Your task to perform on an android device: turn off notifications settings in the gmail app Image 0: 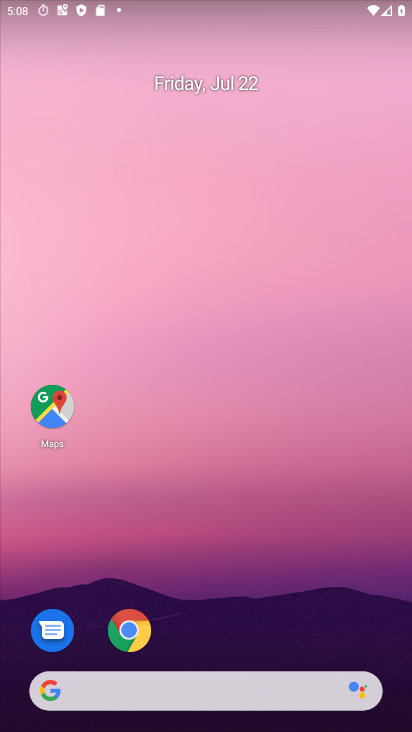
Step 0: drag from (306, 693) to (216, 30)
Your task to perform on an android device: turn off notifications settings in the gmail app Image 1: 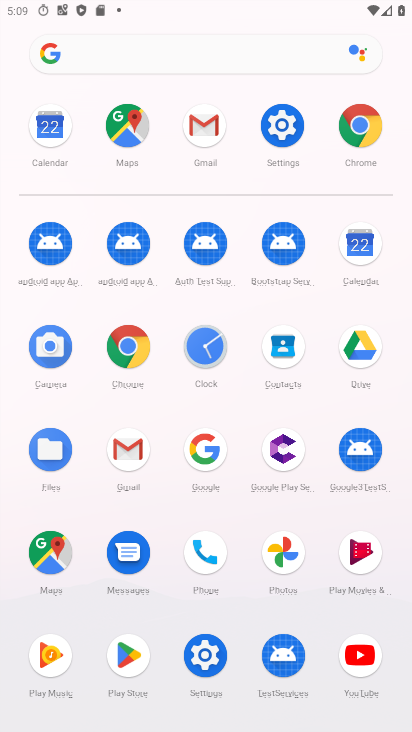
Step 1: click (118, 450)
Your task to perform on an android device: turn off notifications settings in the gmail app Image 2: 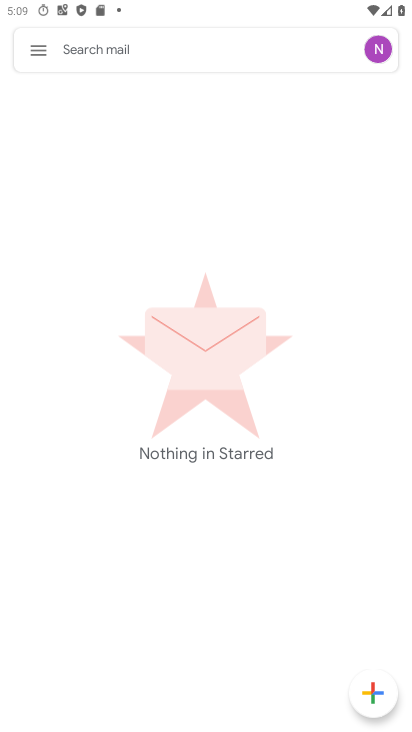
Step 2: click (35, 51)
Your task to perform on an android device: turn off notifications settings in the gmail app Image 3: 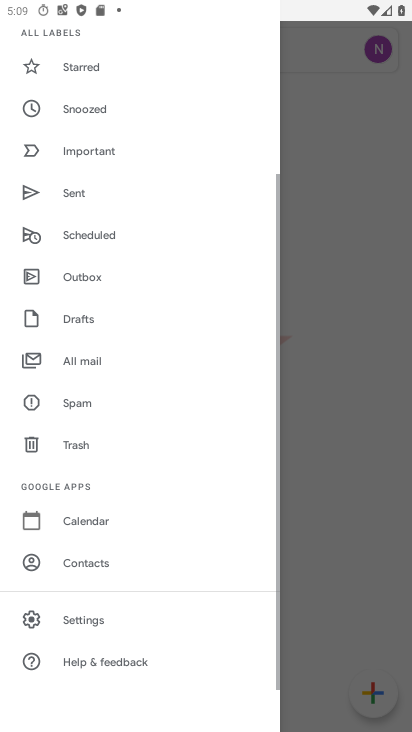
Step 3: click (98, 627)
Your task to perform on an android device: turn off notifications settings in the gmail app Image 4: 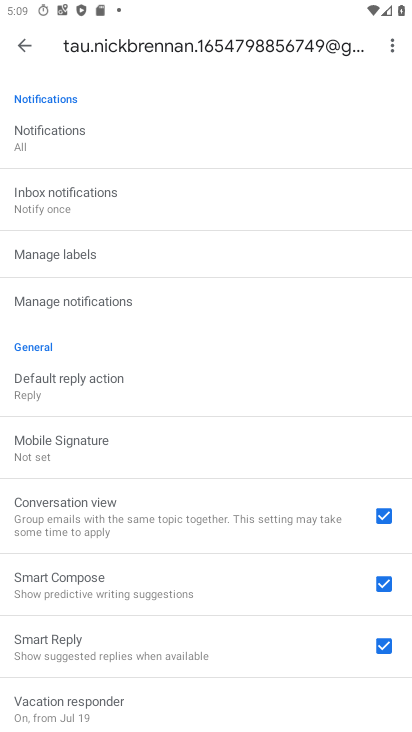
Step 4: click (88, 303)
Your task to perform on an android device: turn off notifications settings in the gmail app Image 5: 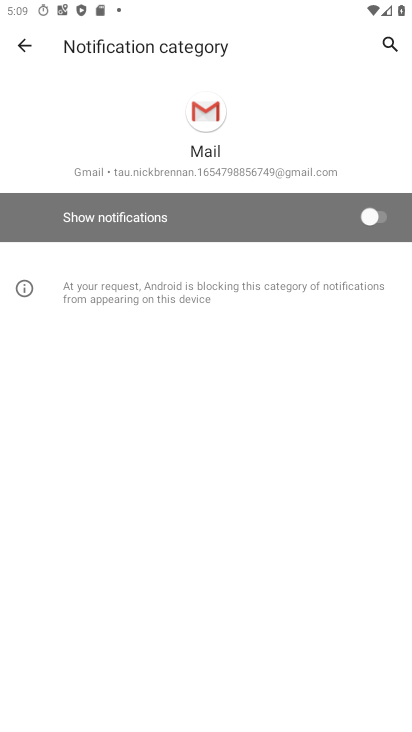
Step 5: click (376, 212)
Your task to perform on an android device: turn off notifications settings in the gmail app Image 6: 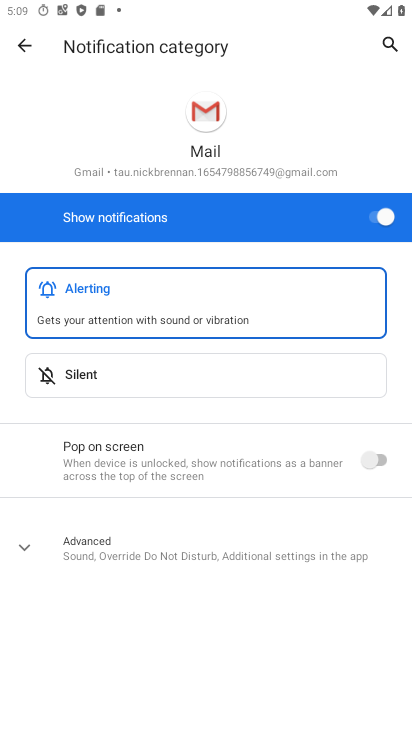
Step 6: click (368, 217)
Your task to perform on an android device: turn off notifications settings in the gmail app Image 7: 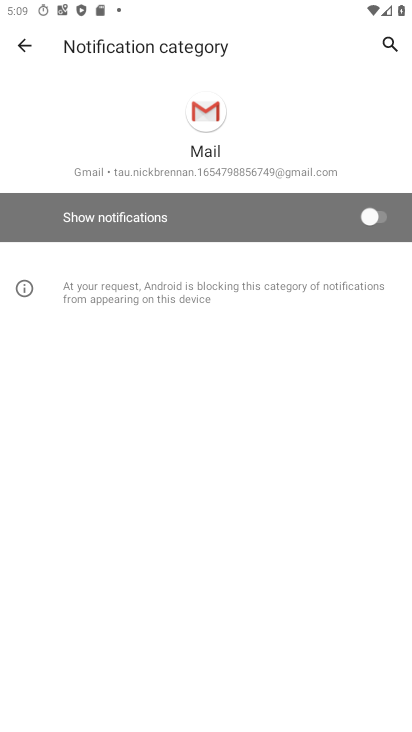
Step 7: task complete